Your task to perform on an android device: check data usage Image 0: 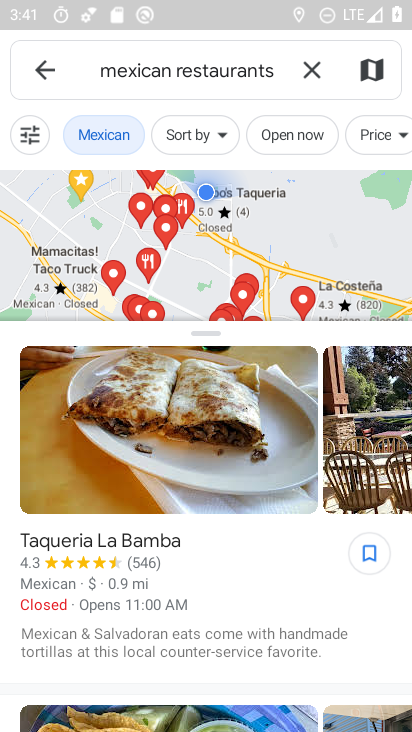
Step 0: press home button
Your task to perform on an android device: check data usage Image 1: 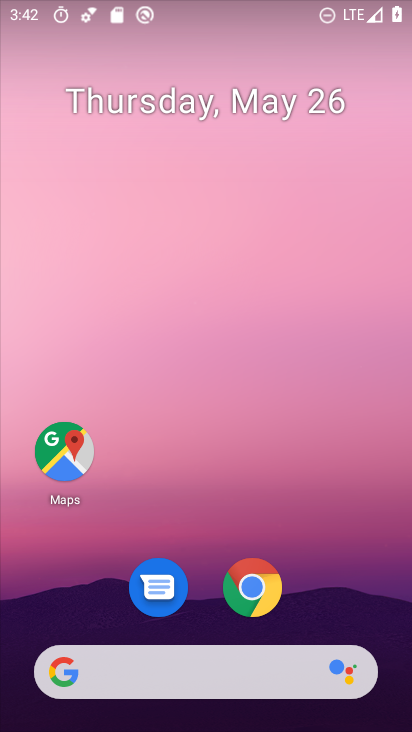
Step 1: drag from (308, 597) to (259, 248)
Your task to perform on an android device: check data usage Image 2: 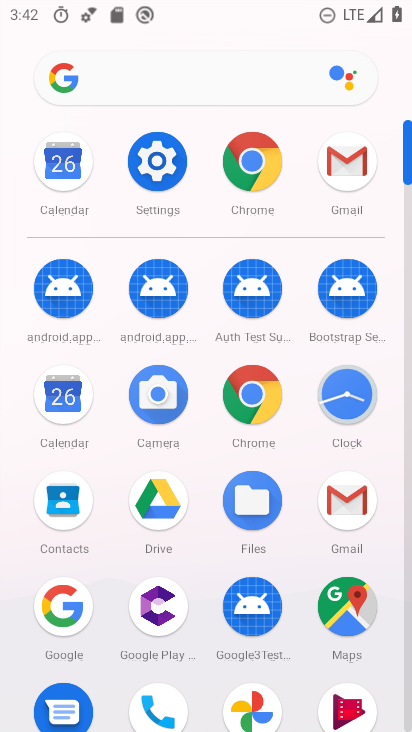
Step 2: click (153, 153)
Your task to perform on an android device: check data usage Image 3: 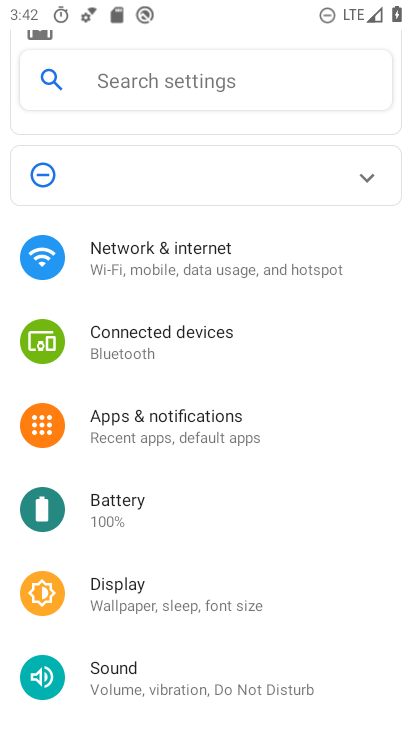
Step 3: click (142, 263)
Your task to perform on an android device: check data usage Image 4: 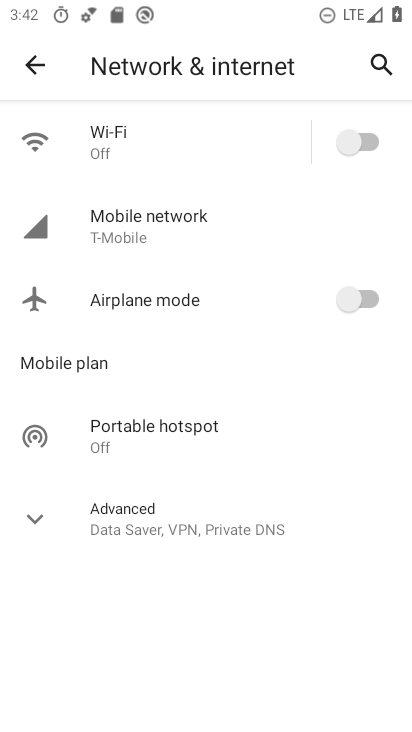
Step 4: click (144, 241)
Your task to perform on an android device: check data usage Image 5: 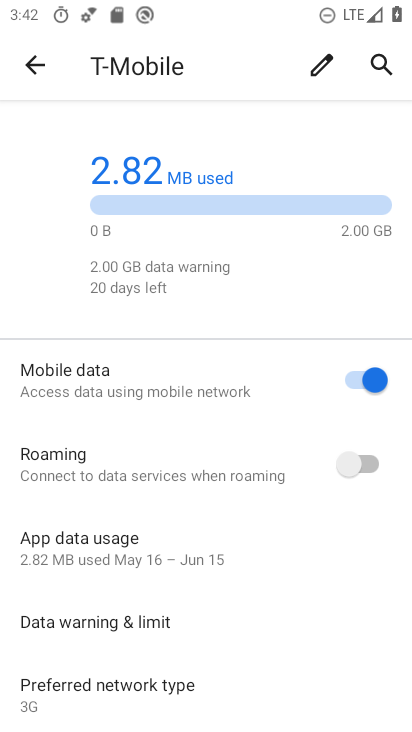
Step 5: task complete